Your task to perform on an android device: Play the last video I watched on Youtube Image 0: 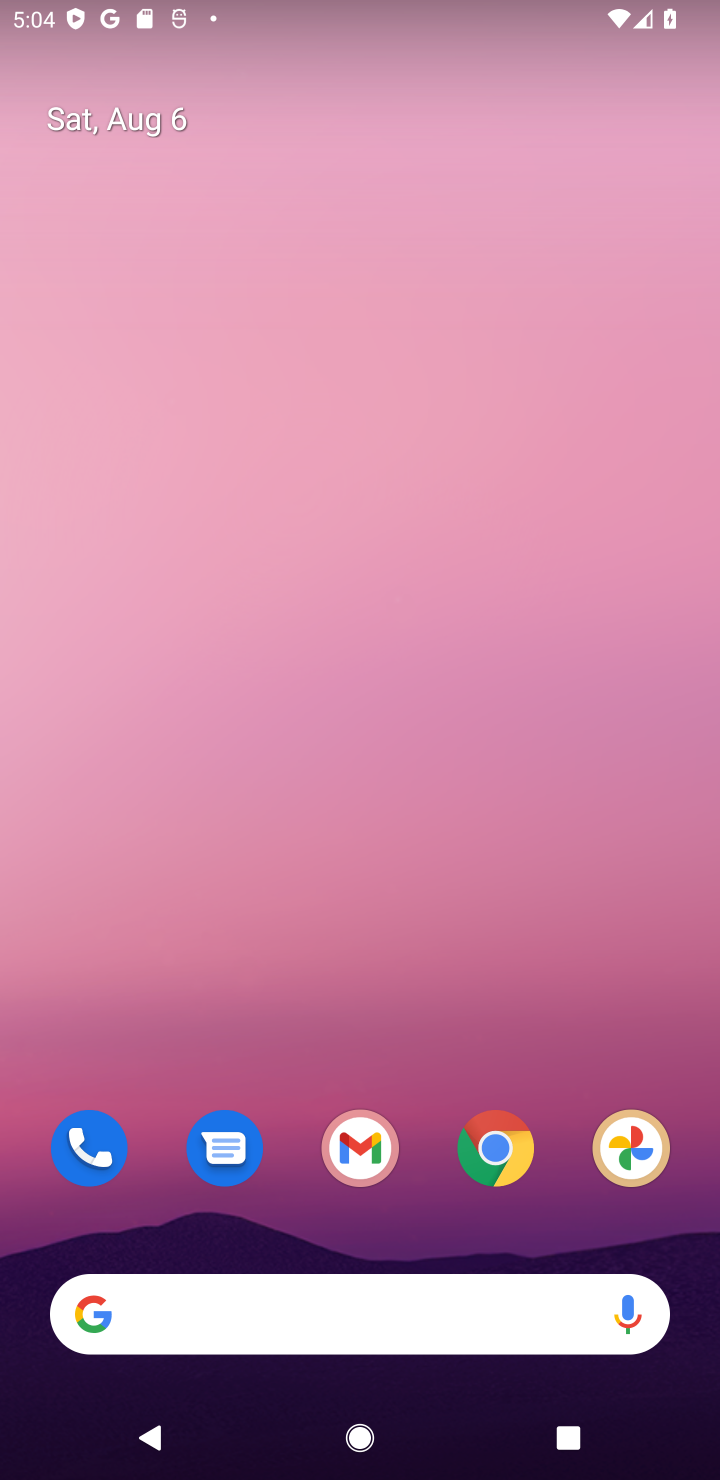
Step 0: press back button
Your task to perform on an android device: Play the last video I watched on Youtube Image 1: 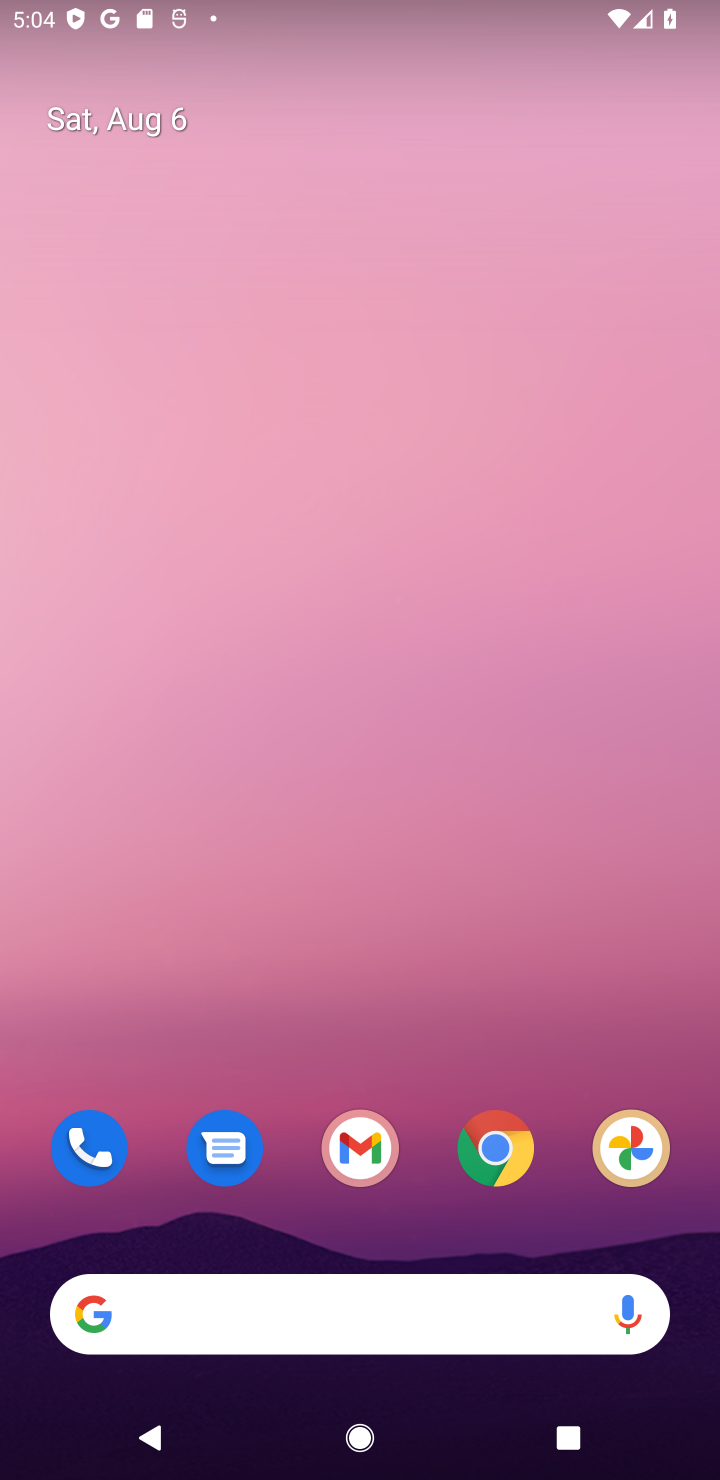
Step 1: drag from (310, 1222) to (334, 17)
Your task to perform on an android device: Play the last video I watched on Youtube Image 2: 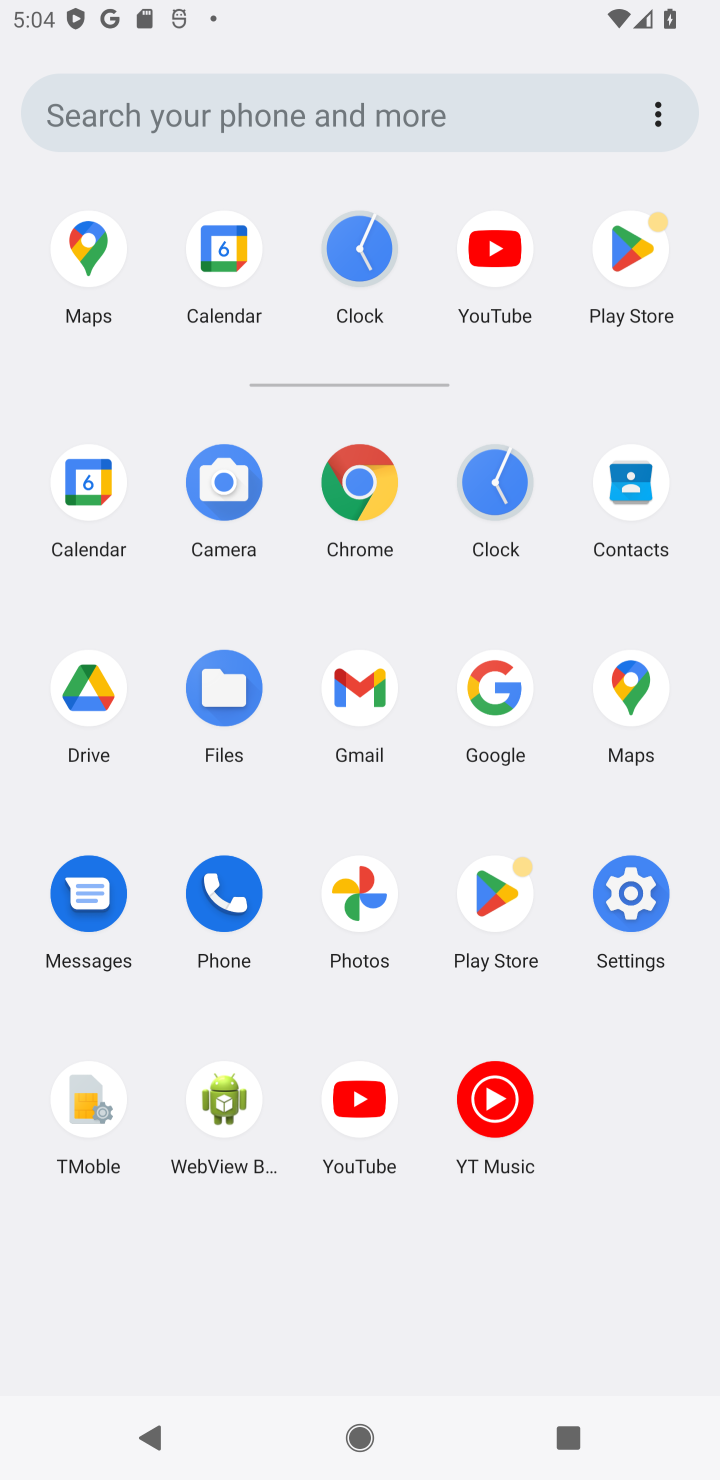
Step 2: click (333, 1116)
Your task to perform on an android device: Play the last video I watched on Youtube Image 3: 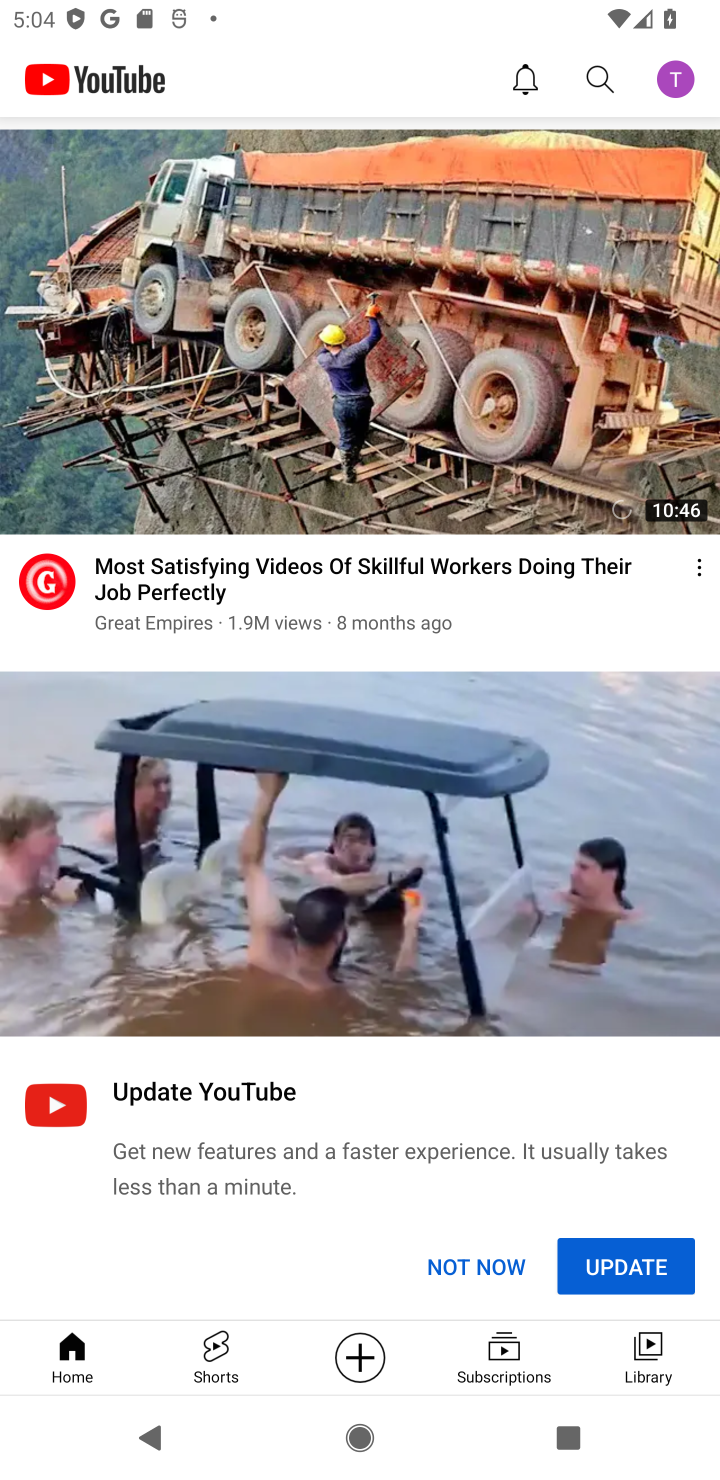
Step 3: drag from (100, 148) to (160, 518)
Your task to perform on an android device: Play the last video I watched on Youtube Image 4: 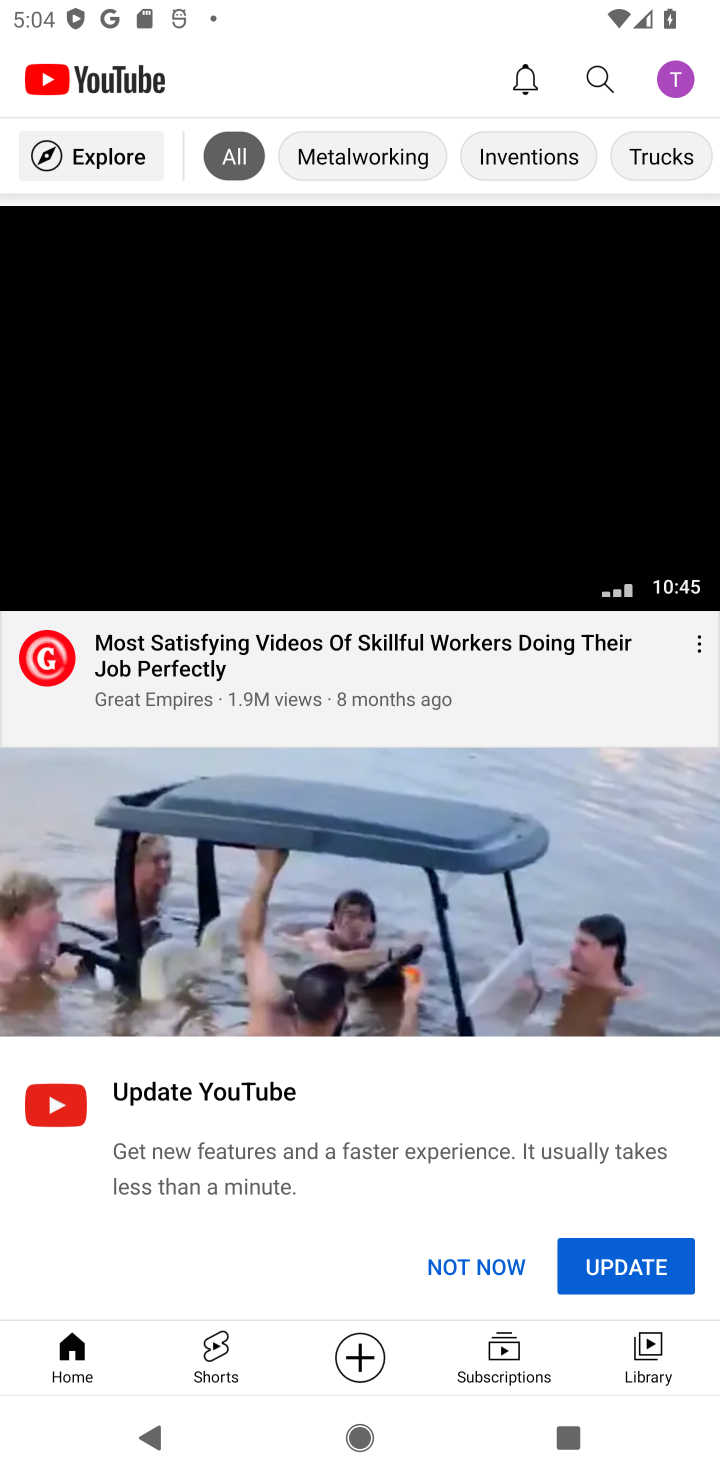
Step 4: drag from (151, 373) to (179, 586)
Your task to perform on an android device: Play the last video I watched on Youtube Image 5: 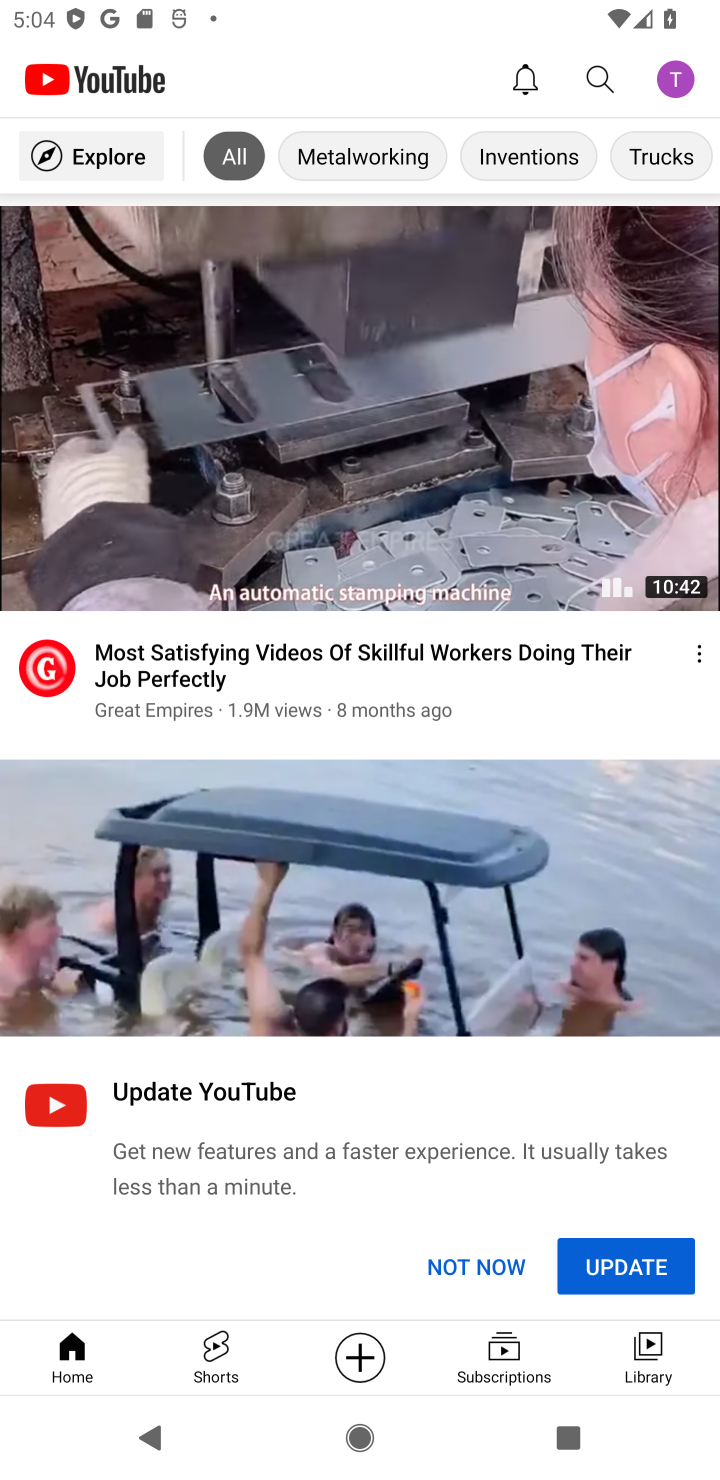
Step 5: click (100, 145)
Your task to perform on an android device: Play the last video I watched on Youtube Image 6: 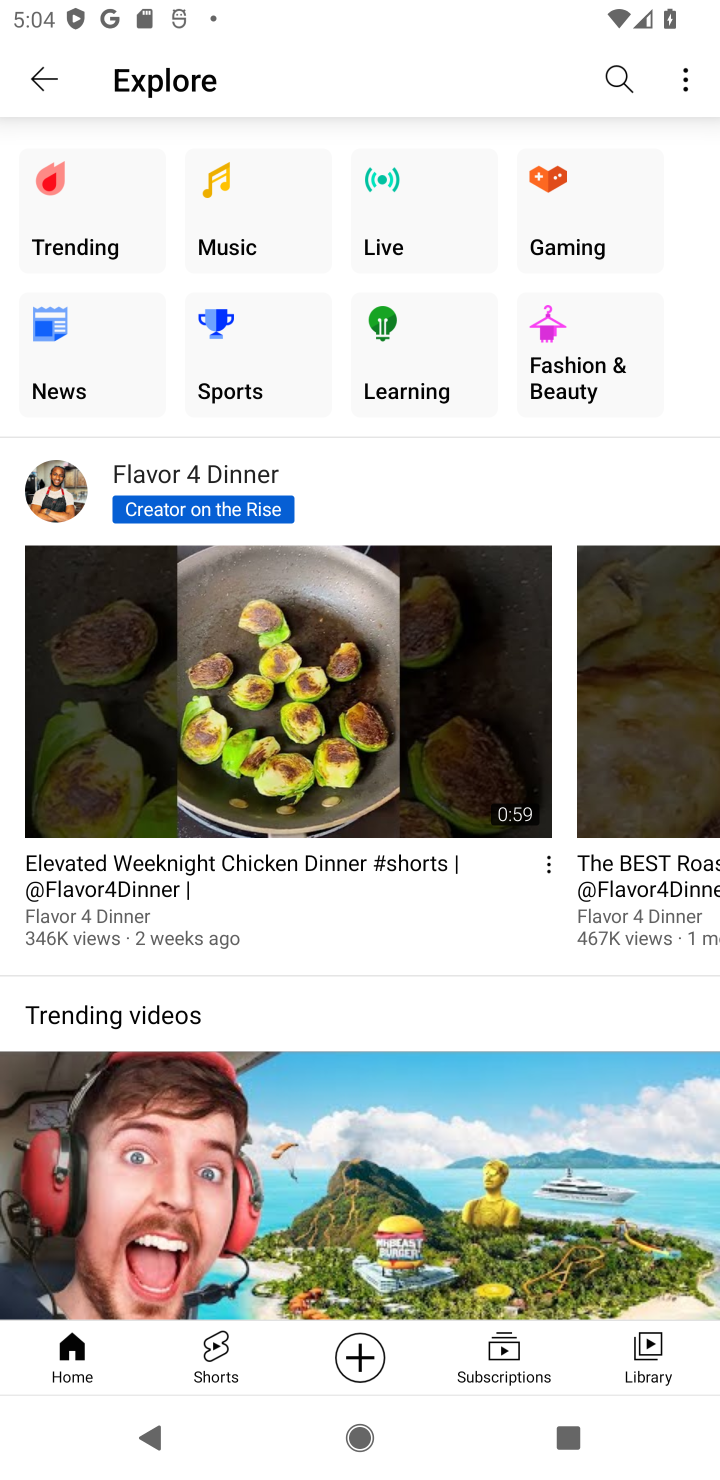
Step 6: click (91, 169)
Your task to perform on an android device: Play the last video I watched on Youtube Image 7: 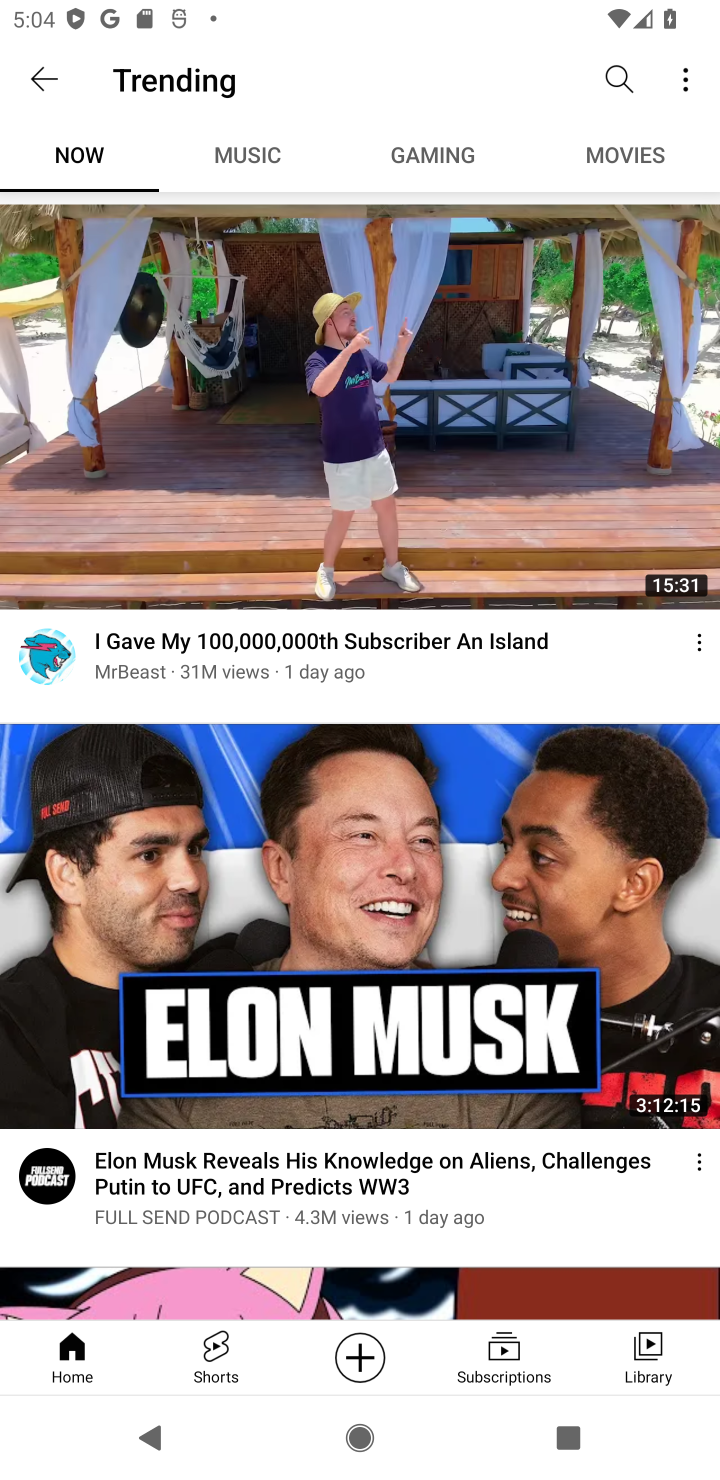
Step 7: click (658, 1362)
Your task to perform on an android device: Play the last video I watched on Youtube Image 8: 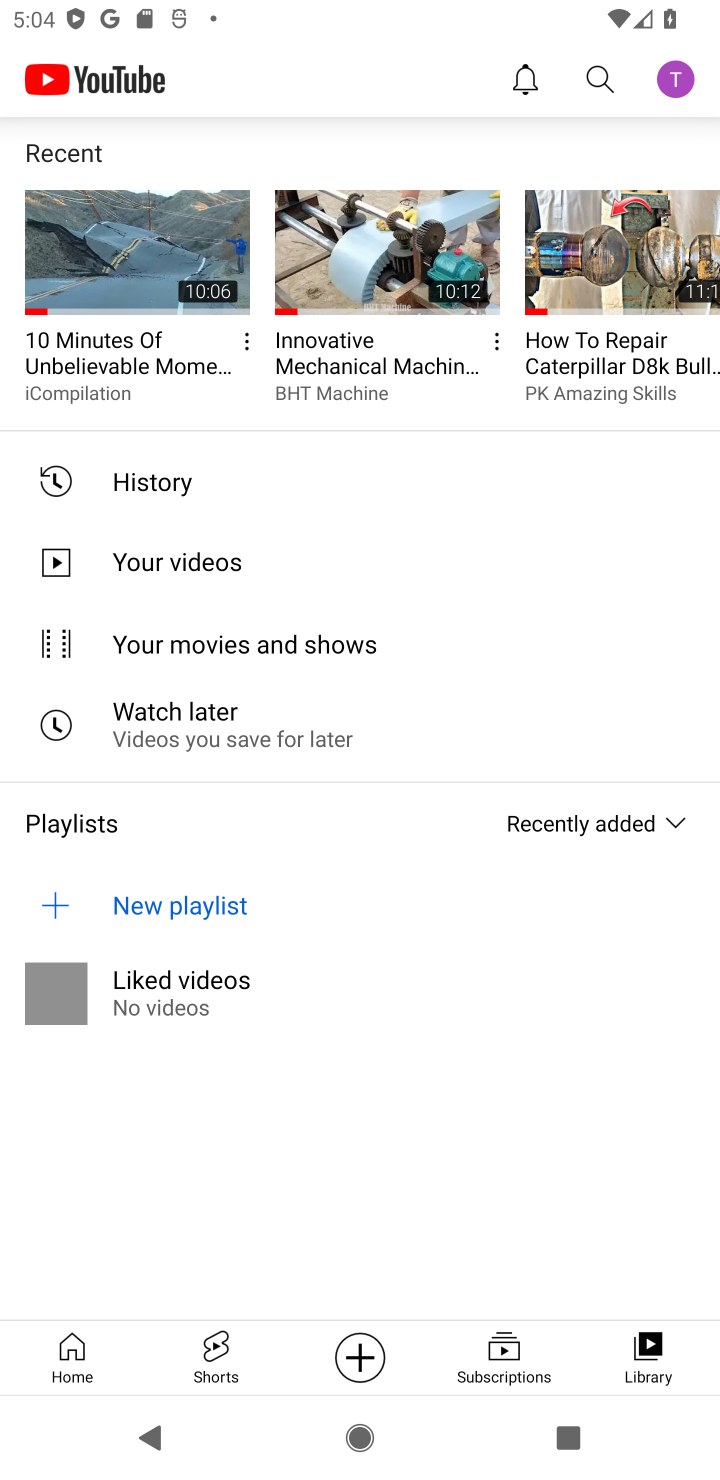
Step 8: click (120, 441)
Your task to perform on an android device: Play the last video I watched on Youtube Image 9: 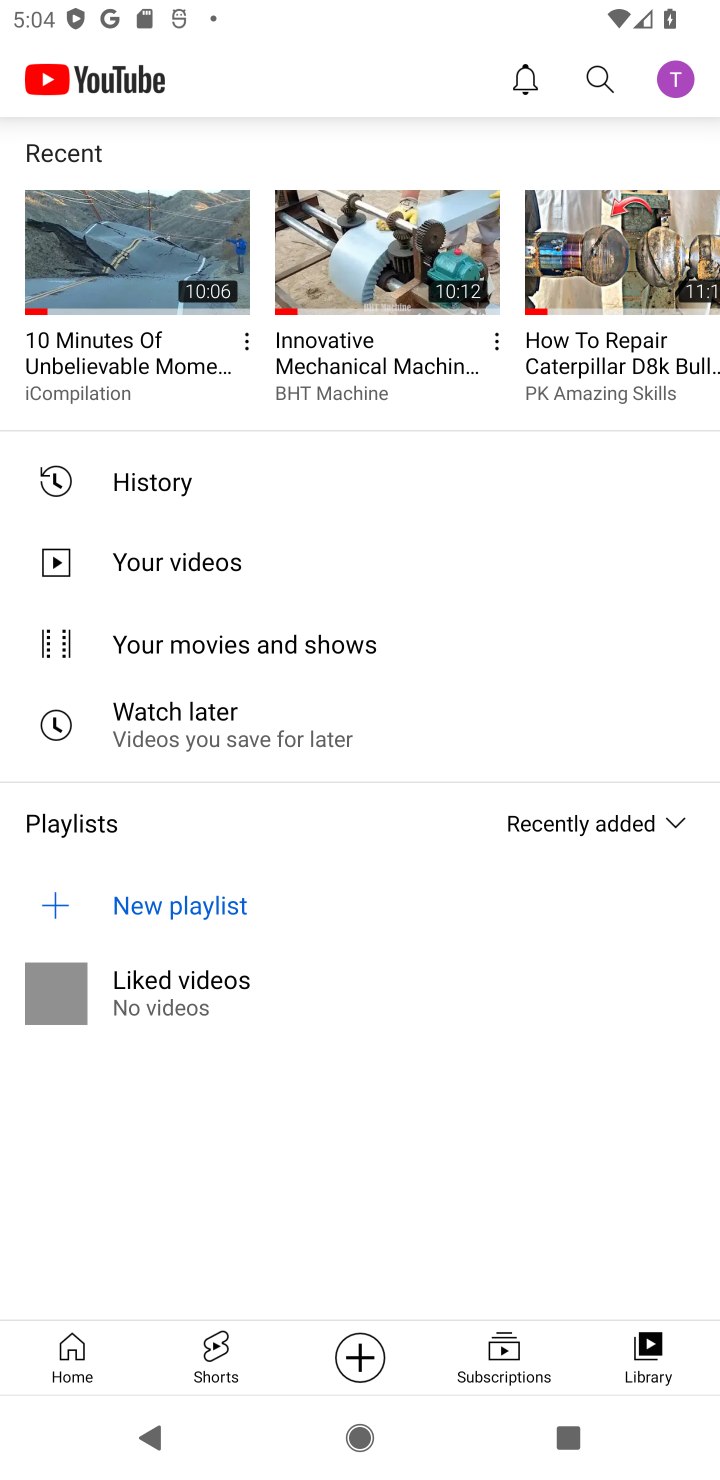
Step 9: click (193, 489)
Your task to perform on an android device: Play the last video I watched on Youtube Image 10: 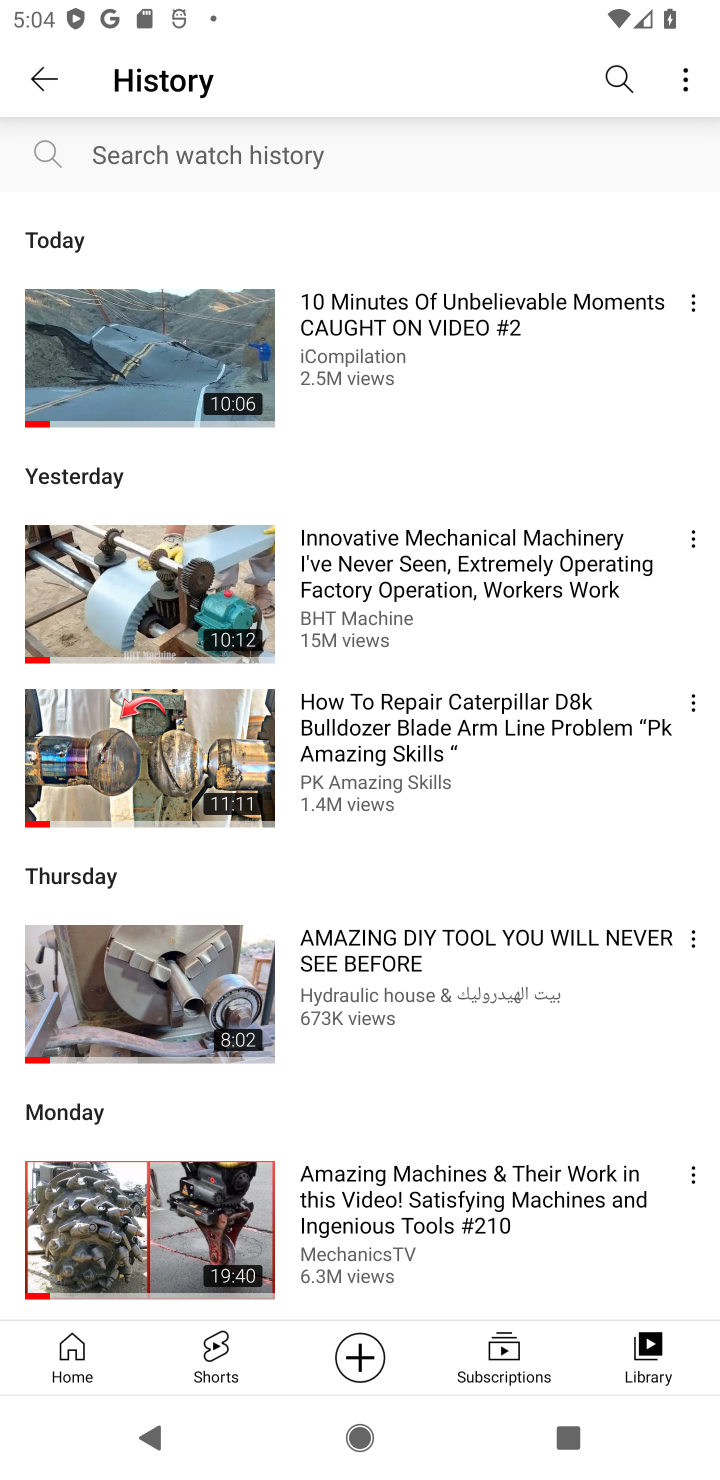
Step 10: task complete